Your task to perform on an android device: set the timer Image 0: 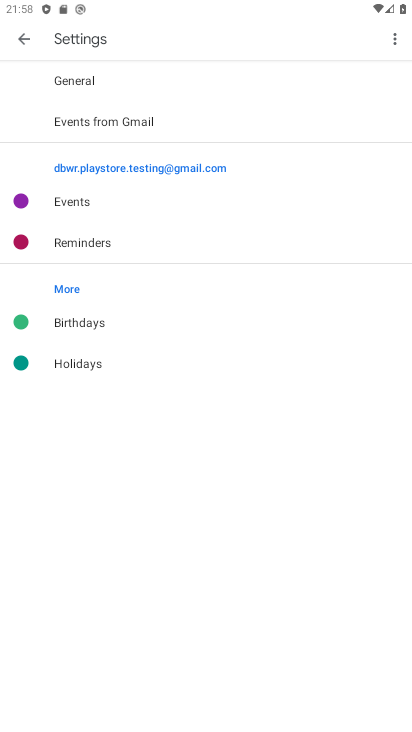
Step 0: press home button
Your task to perform on an android device: set the timer Image 1: 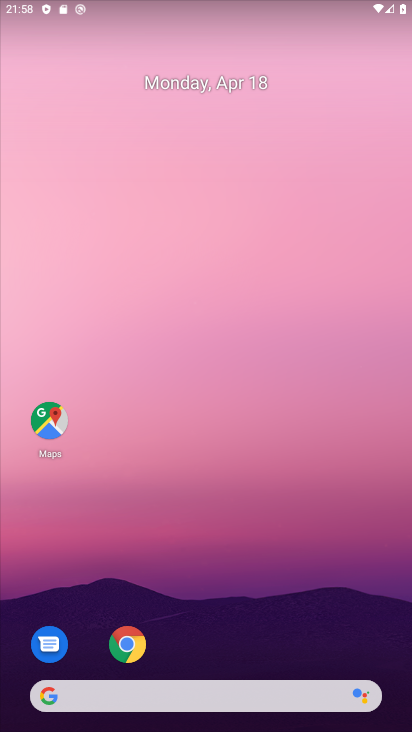
Step 1: drag from (193, 633) to (348, 4)
Your task to perform on an android device: set the timer Image 2: 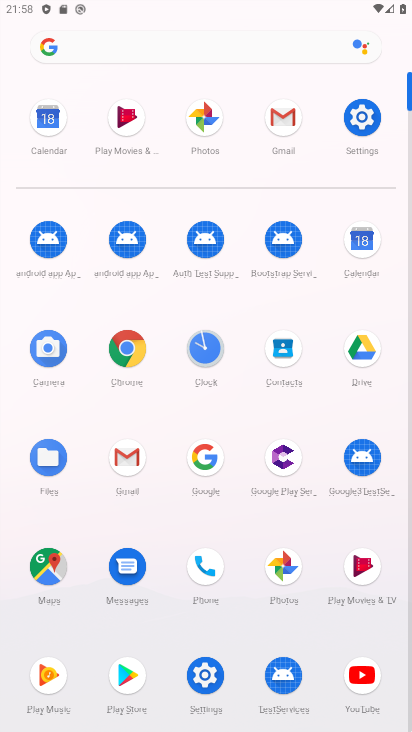
Step 2: click (209, 355)
Your task to perform on an android device: set the timer Image 3: 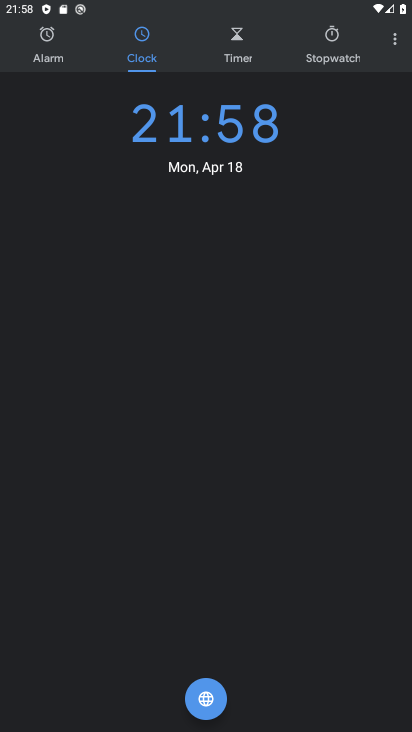
Step 3: click (236, 51)
Your task to perform on an android device: set the timer Image 4: 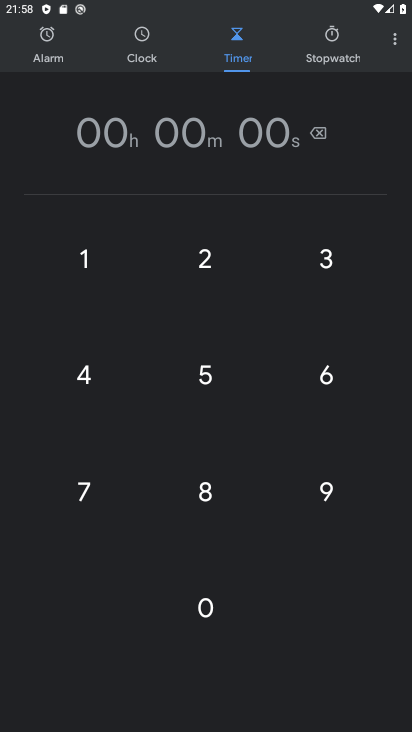
Step 4: click (87, 380)
Your task to perform on an android device: set the timer Image 5: 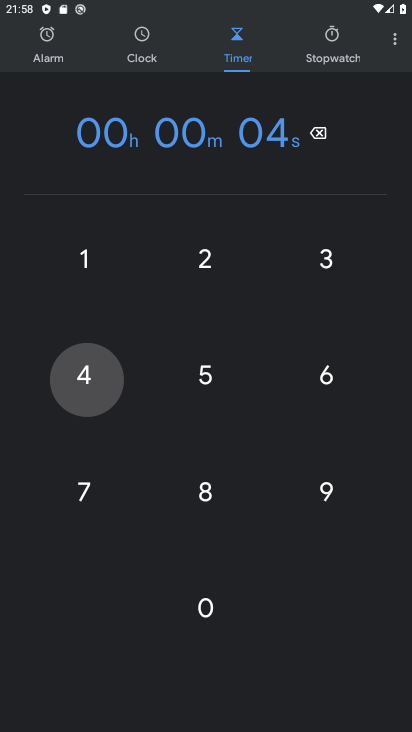
Step 5: click (199, 383)
Your task to perform on an android device: set the timer Image 6: 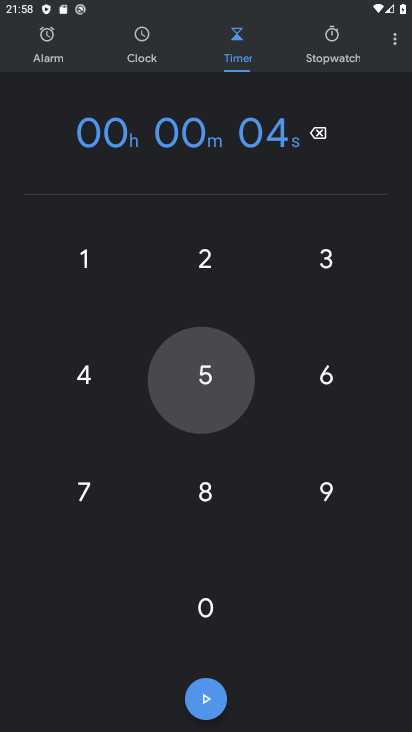
Step 6: click (336, 283)
Your task to perform on an android device: set the timer Image 7: 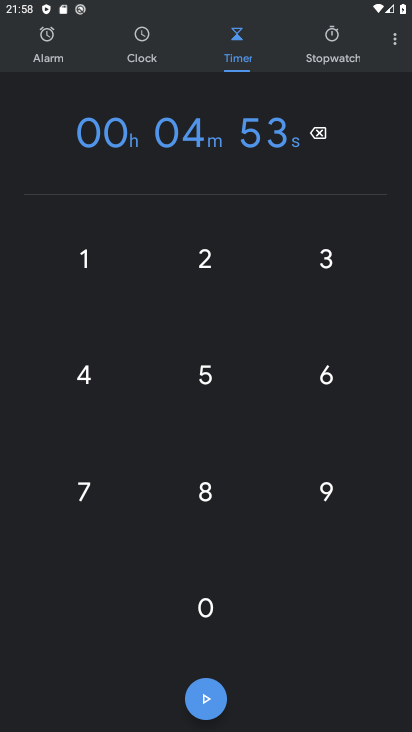
Step 7: click (206, 700)
Your task to perform on an android device: set the timer Image 8: 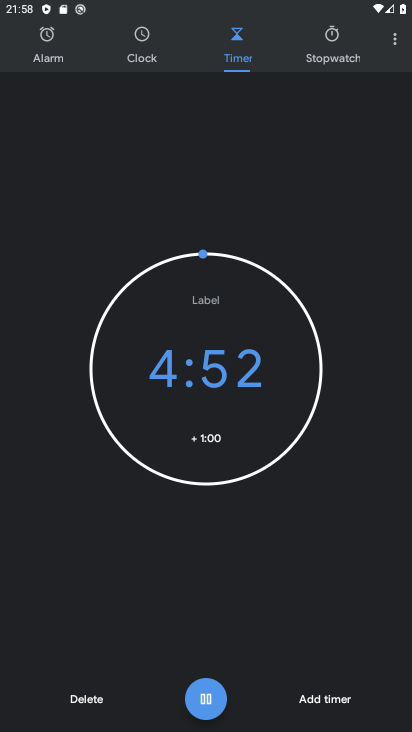
Step 8: task complete